Your task to perform on an android device: search for starred emails in the gmail app Image 0: 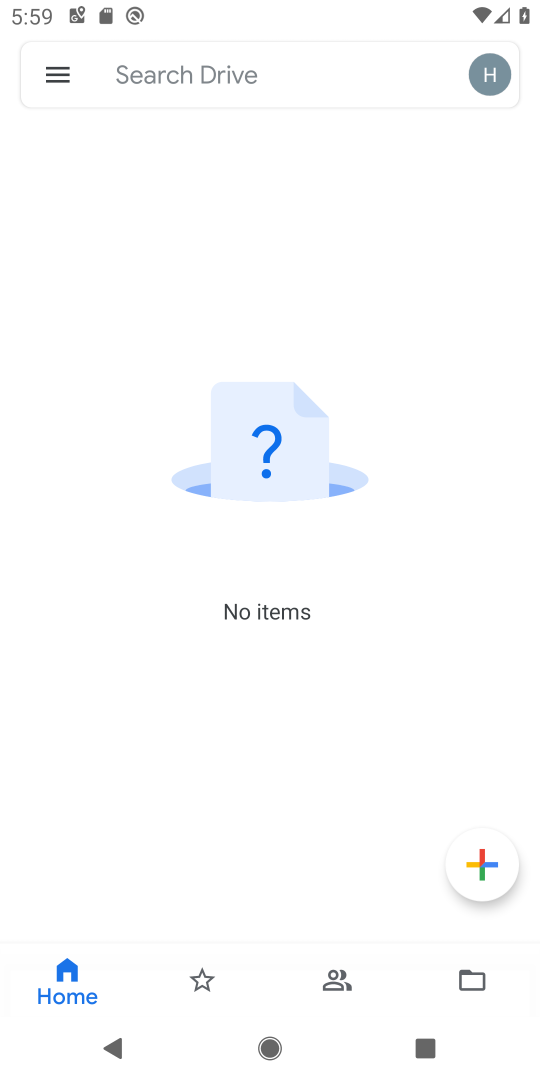
Step 0: press home button
Your task to perform on an android device: search for starred emails in the gmail app Image 1: 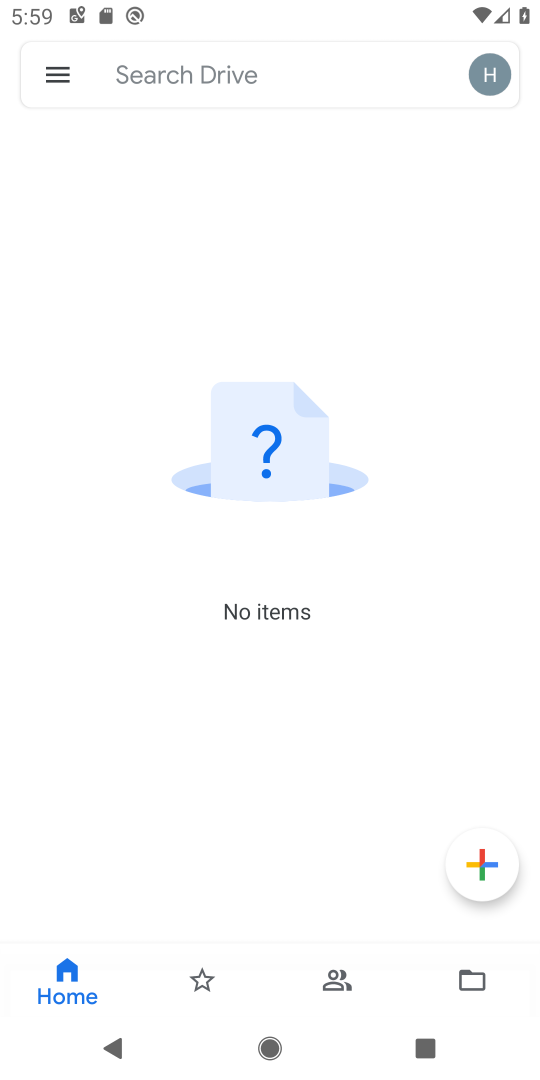
Step 1: press home button
Your task to perform on an android device: search for starred emails in the gmail app Image 2: 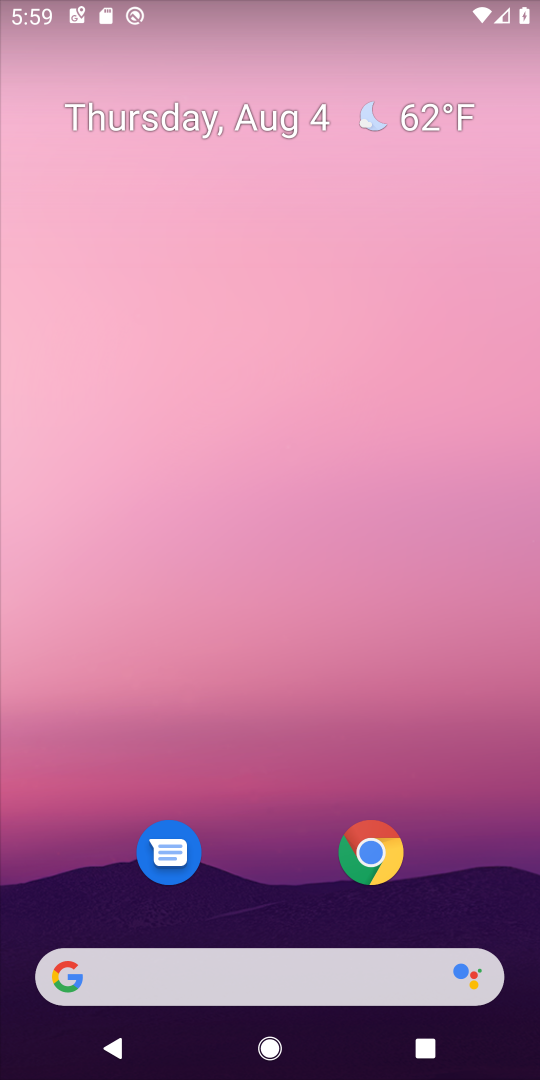
Step 2: press home button
Your task to perform on an android device: search for starred emails in the gmail app Image 3: 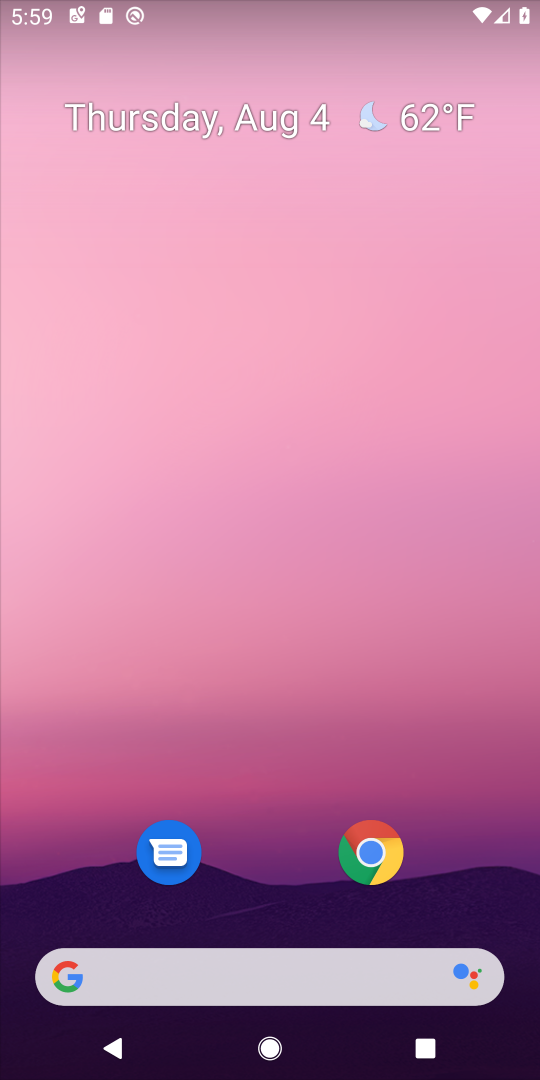
Step 3: drag from (270, 913) to (266, 381)
Your task to perform on an android device: search for starred emails in the gmail app Image 4: 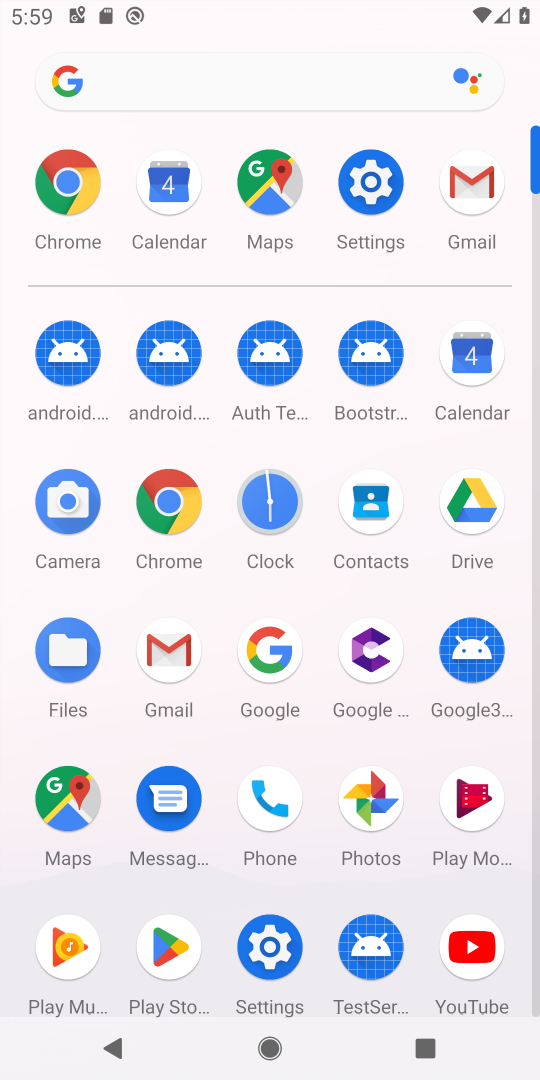
Step 4: click (472, 187)
Your task to perform on an android device: search for starred emails in the gmail app Image 5: 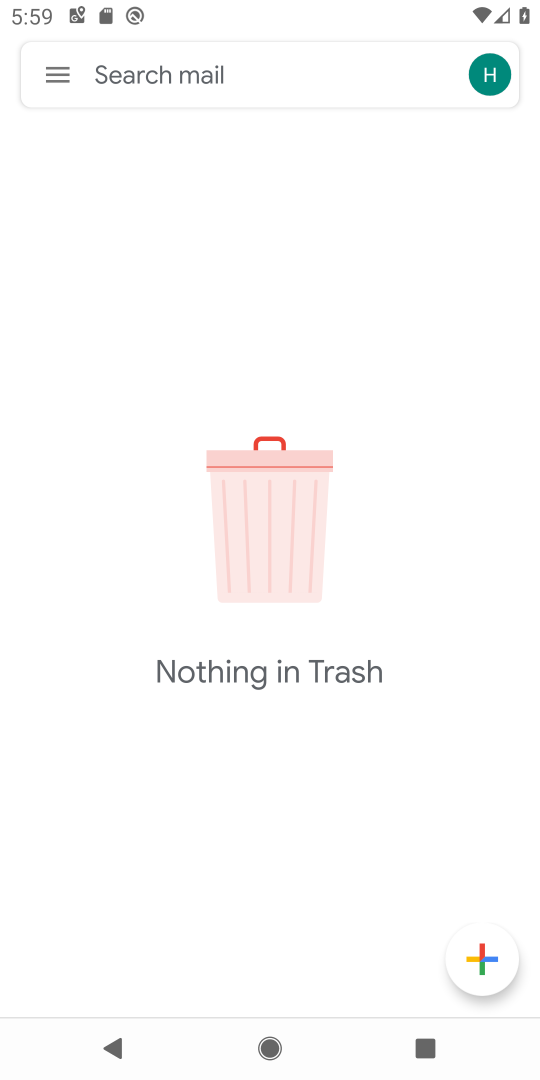
Step 5: click (56, 74)
Your task to perform on an android device: search for starred emails in the gmail app Image 6: 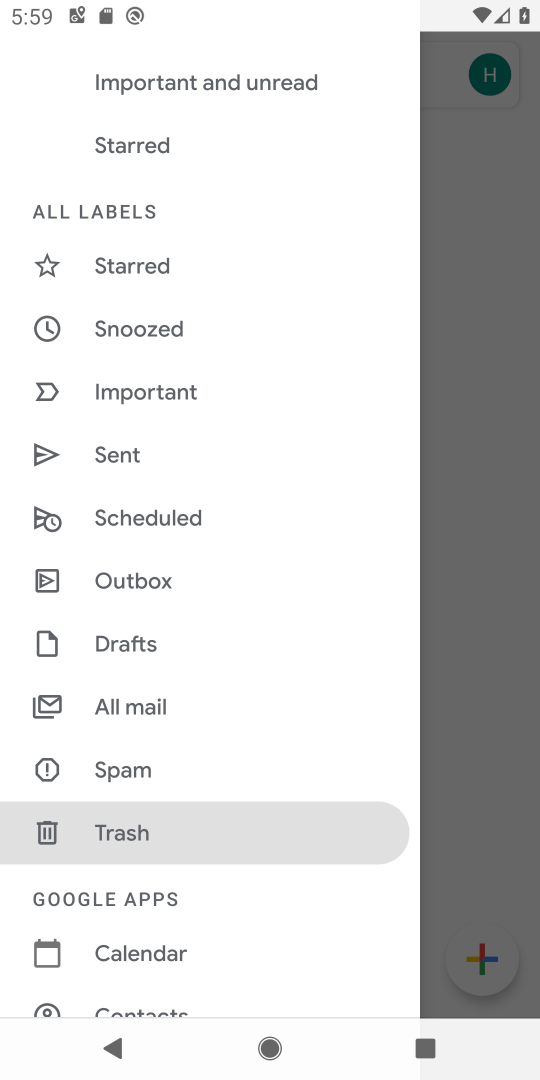
Step 6: click (137, 264)
Your task to perform on an android device: search for starred emails in the gmail app Image 7: 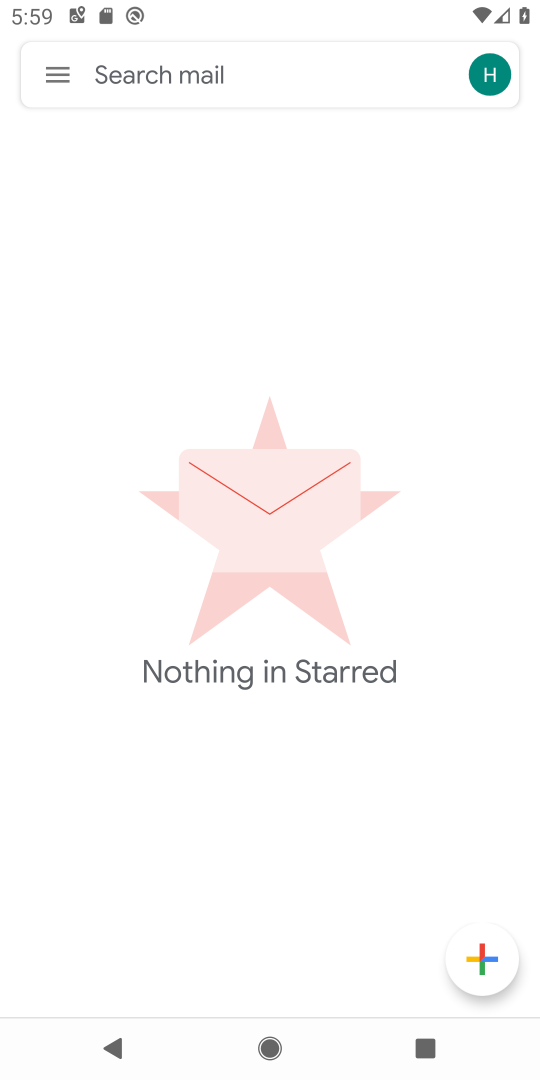
Step 7: task complete